Your task to perform on an android device: Show the shopping cart on ebay.com. Add "macbook pro 13 inch" to the cart on ebay.com Image 0: 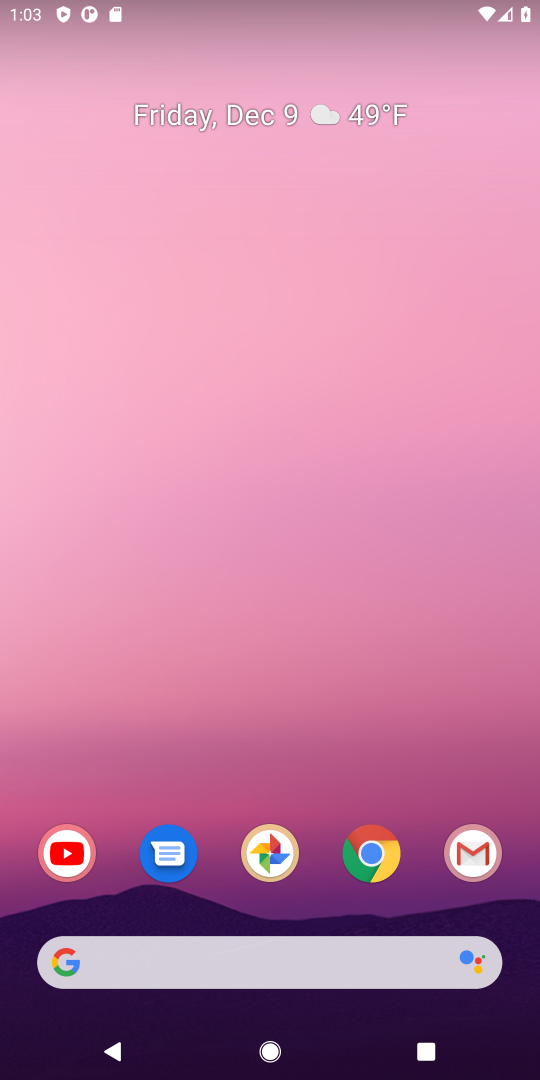
Step 0: click (333, 386)
Your task to perform on an android device: Show the shopping cart on ebay.com. Add "macbook pro 13 inch" to the cart on ebay.com Image 1: 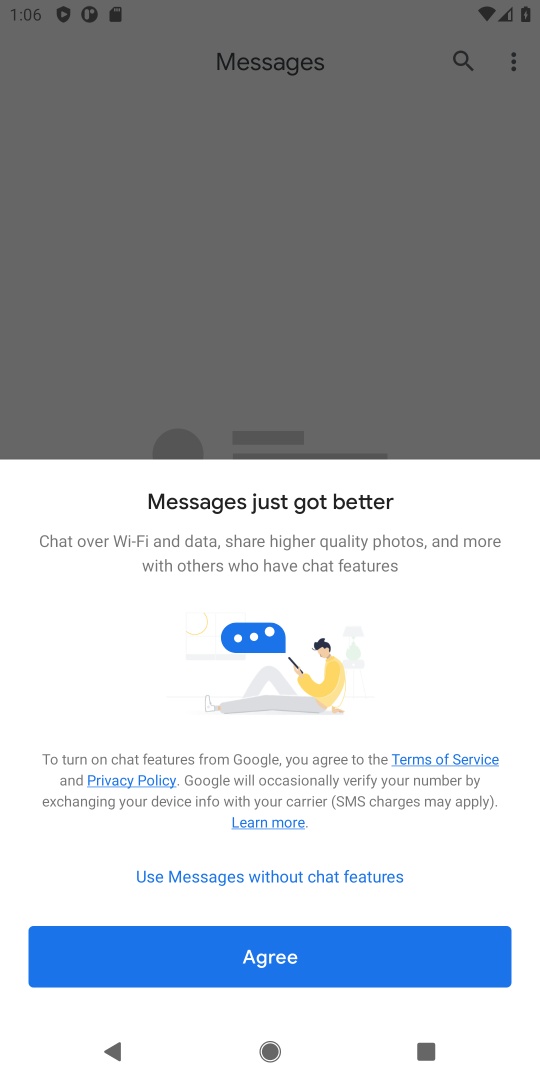
Step 1: press home button
Your task to perform on an android device: Show the shopping cart on ebay.com. Add "macbook pro 13 inch" to the cart on ebay.com Image 2: 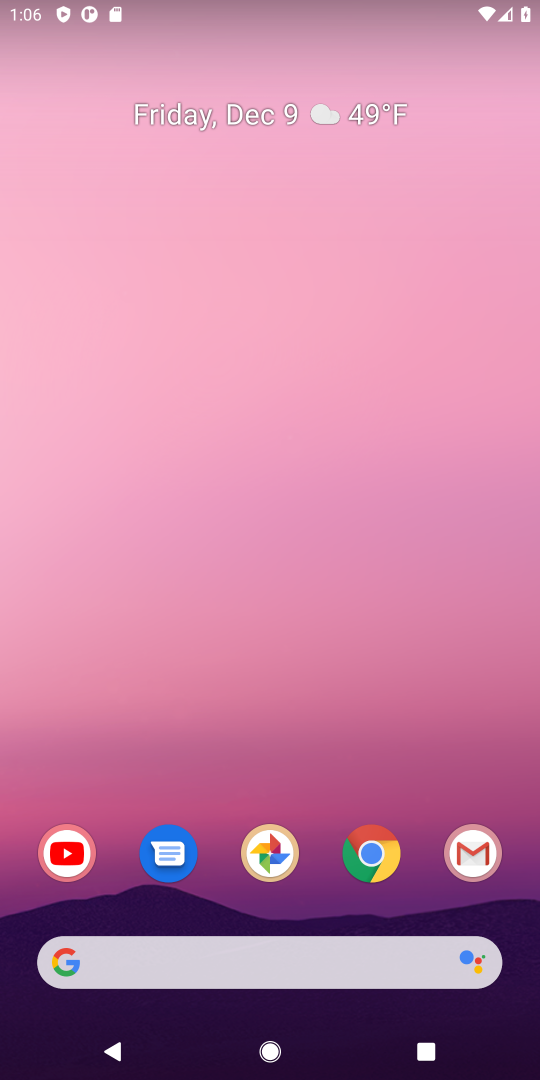
Step 2: drag from (318, 819) to (409, 302)
Your task to perform on an android device: Show the shopping cart on ebay.com. Add "macbook pro 13 inch" to the cart on ebay.com Image 3: 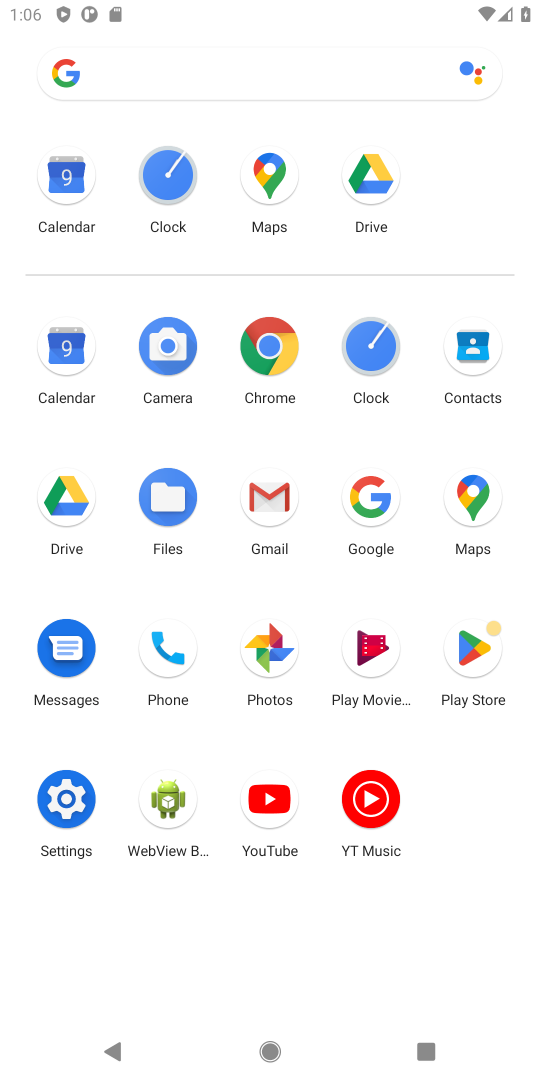
Step 3: click (380, 569)
Your task to perform on an android device: Show the shopping cart on ebay.com. Add "macbook pro 13 inch" to the cart on ebay.com Image 4: 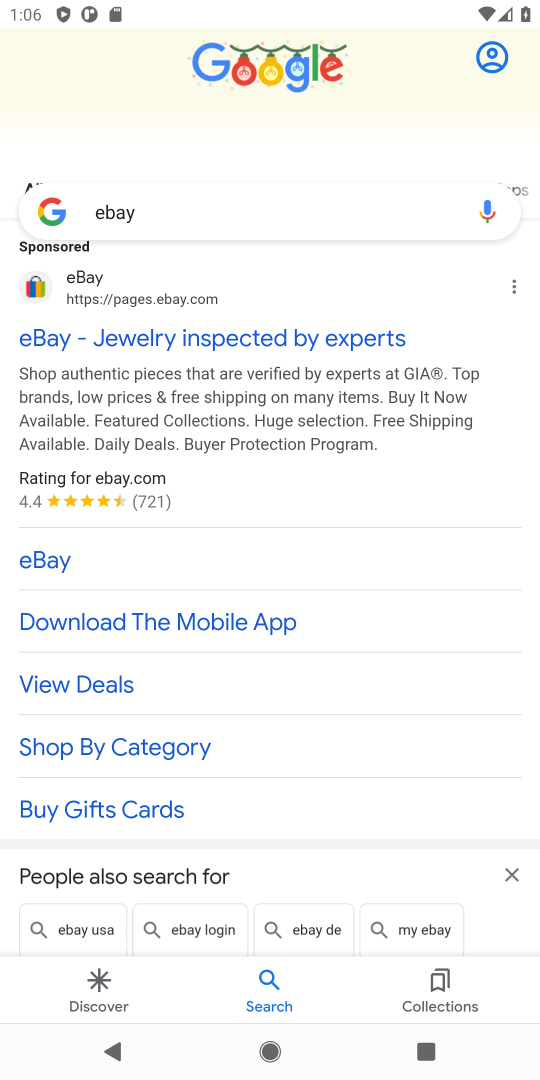
Step 4: click (365, 505)
Your task to perform on an android device: Show the shopping cart on ebay.com. Add "macbook pro 13 inch" to the cart on ebay.com Image 5: 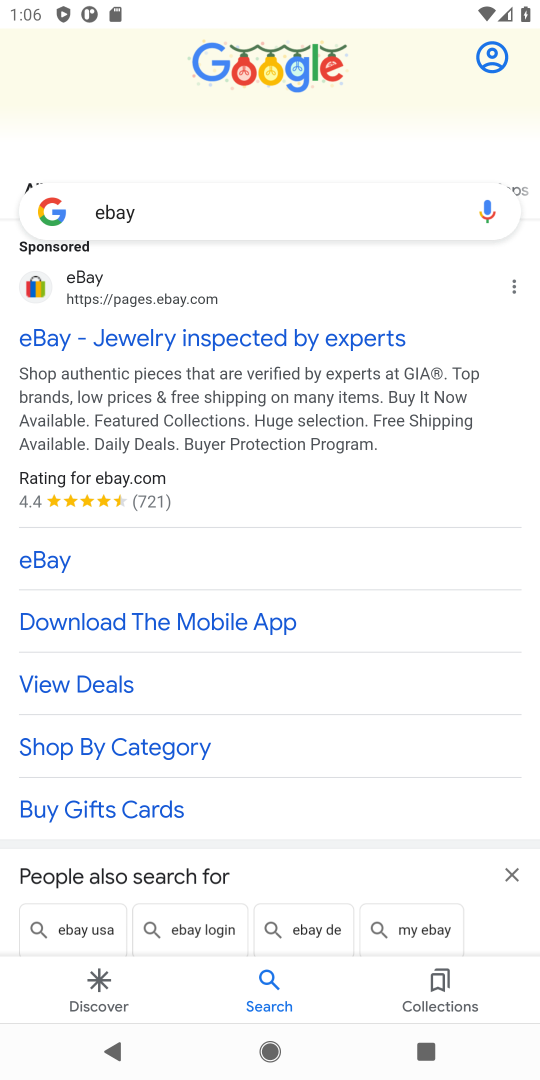
Step 5: click (150, 325)
Your task to perform on an android device: Show the shopping cart on ebay.com. Add "macbook pro 13 inch" to the cart on ebay.com Image 6: 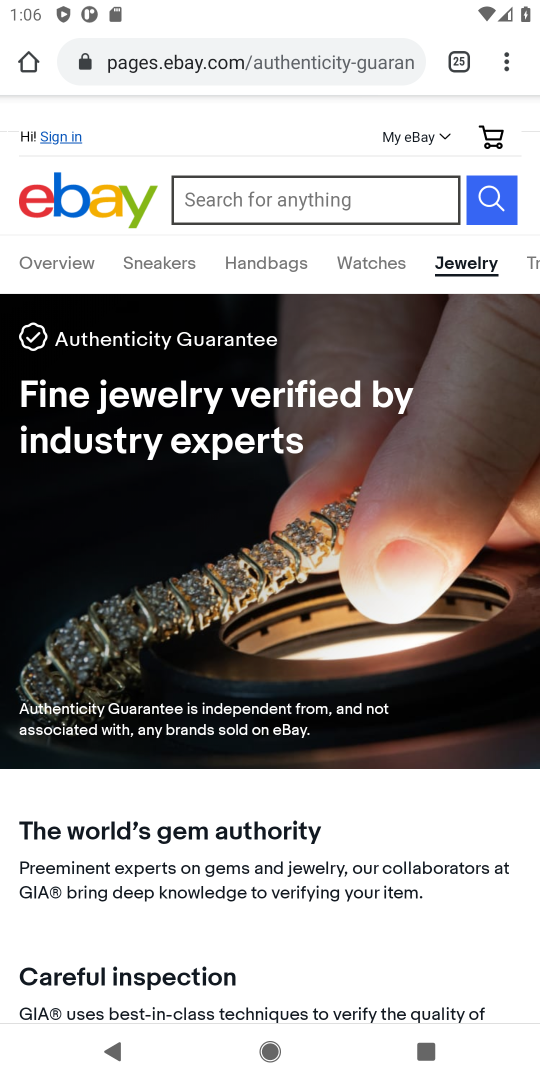
Step 6: click (244, 204)
Your task to perform on an android device: Show the shopping cart on ebay.com. Add "macbook pro 13 inch" to the cart on ebay.com Image 7: 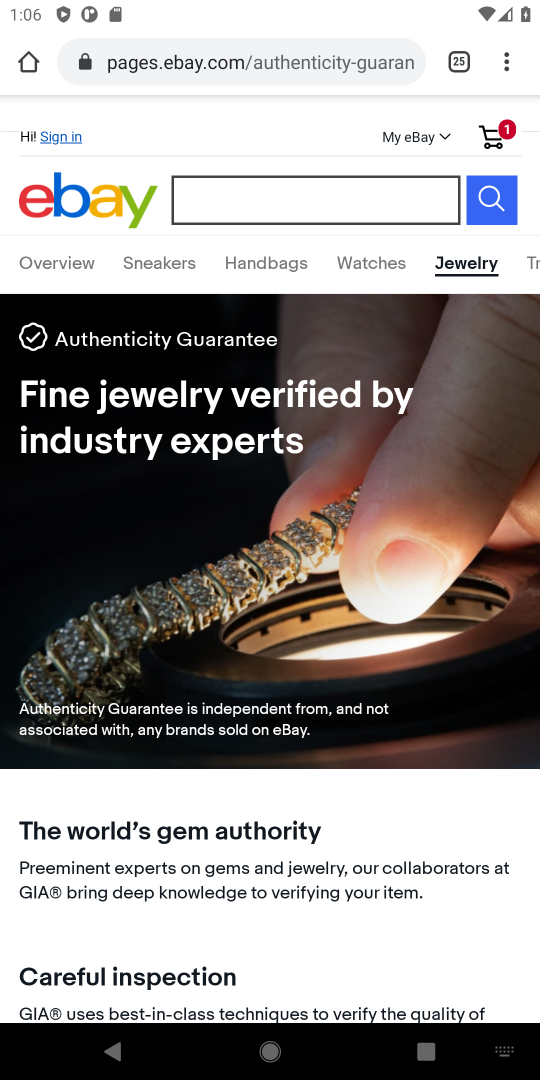
Step 7: click (499, 142)
Your task to perform on an android device: Show the shopping cart on ebay.com. Add "macbook pro 13 inch" to the cart on ebay.com Image 8: 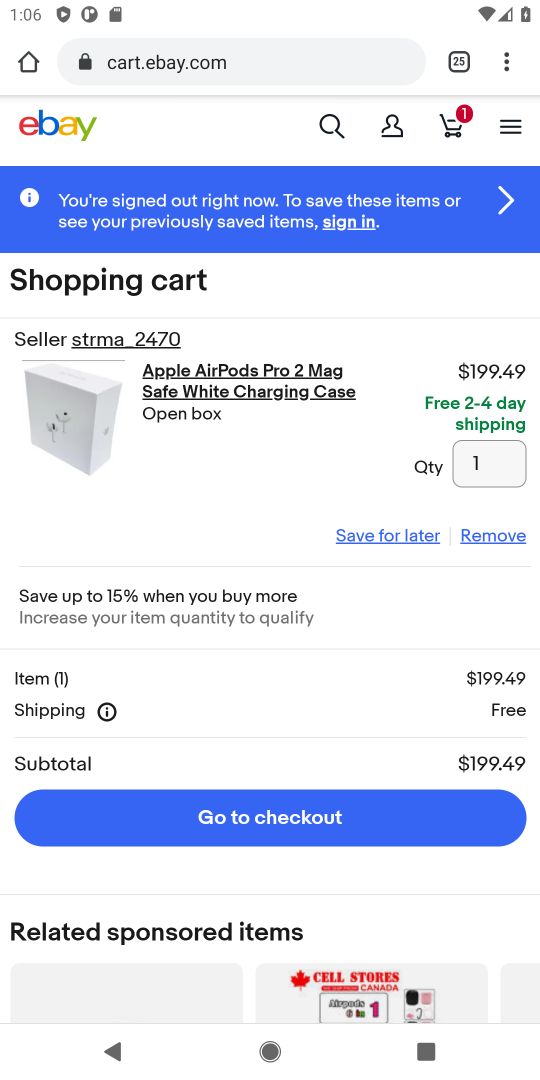
Step 8: click (320, 125)
Your task to perform on an android device: Show the shopping cart on ebay.com. Add "macbook pro 13 inch" to the cart on ebay.com Image 9: 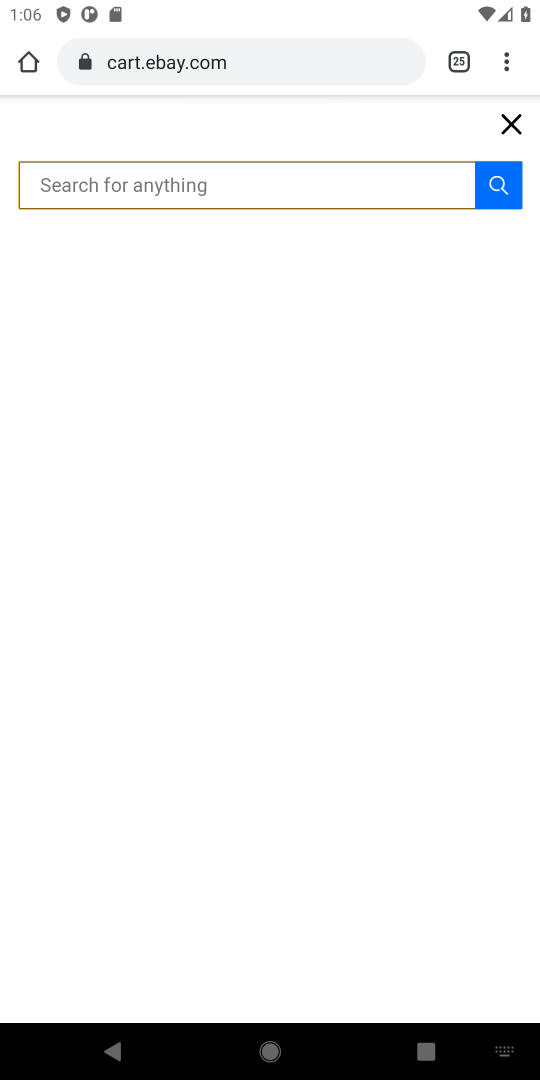
Step 9: type "macbook pro 13 inch"
Your task to perform on an android device: Show the shopping cart on ebay.com. Add "macbook pro 13 inch" to the cart on ebay.com Image 10: 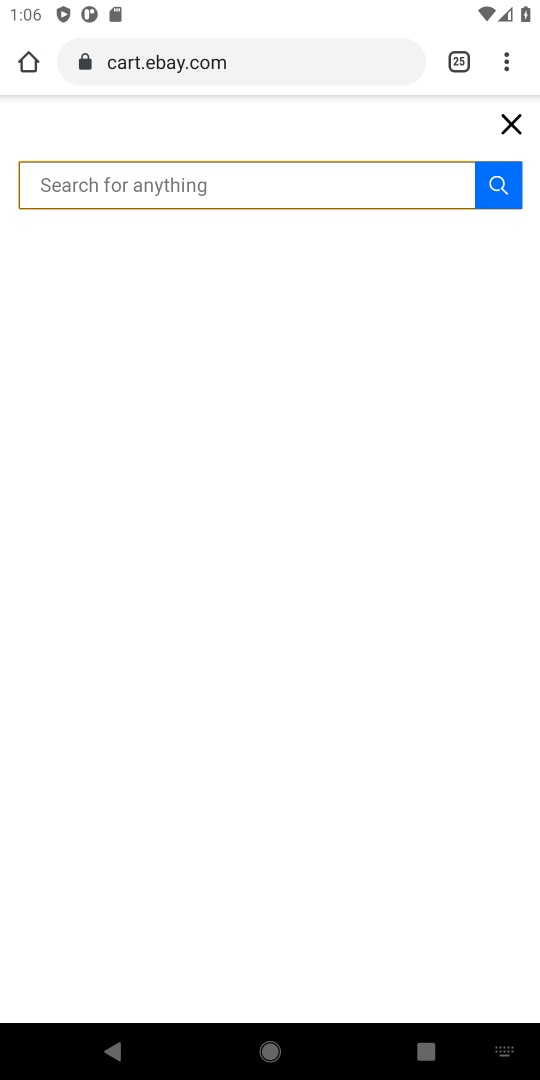
Step 10: click (503, 182)
Your task to perform on an android device: Show the shopping cart on ebay.com. Add "macbook pro 13 inch" to the cart on ebay.com Image 11: 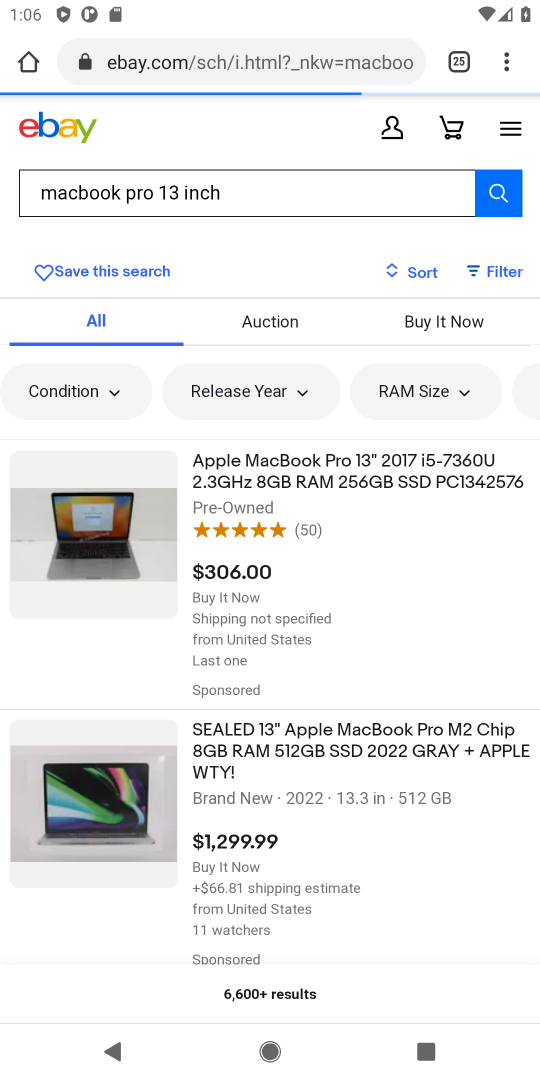
Step 11: click (240, 491)
Your task to perform on an android device: Show the shopping cart on ebay.com. Add "macbook pro 13 inch" to the cart on ebay.com Image 12: 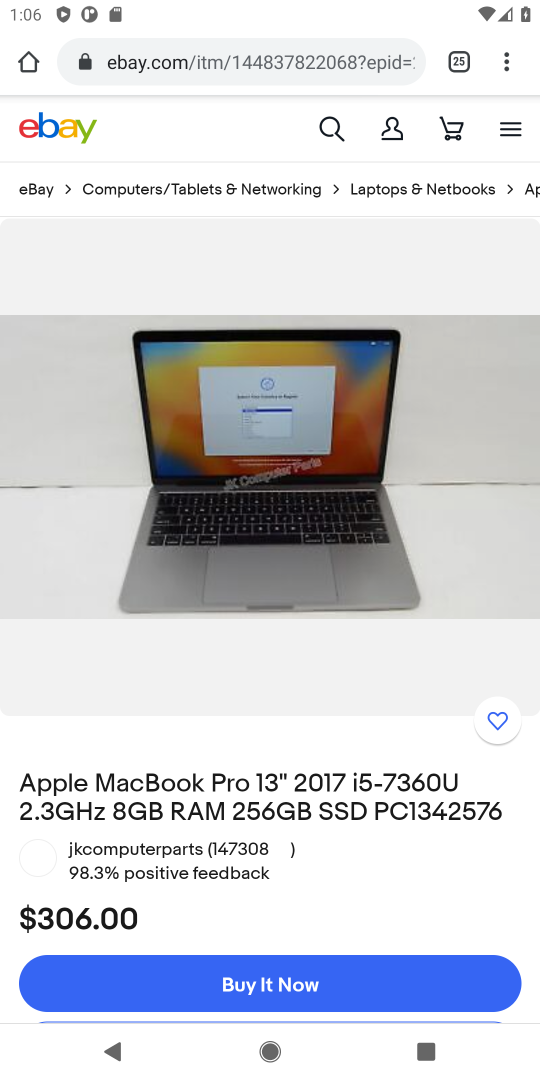
Step 12: drag from (240, 691) to (262, 221)
Your task to perform on an android device: Show the shopping cart on ebay.com. Add "macbook pro 13 inch" to the cart on ebay.com Image 13: 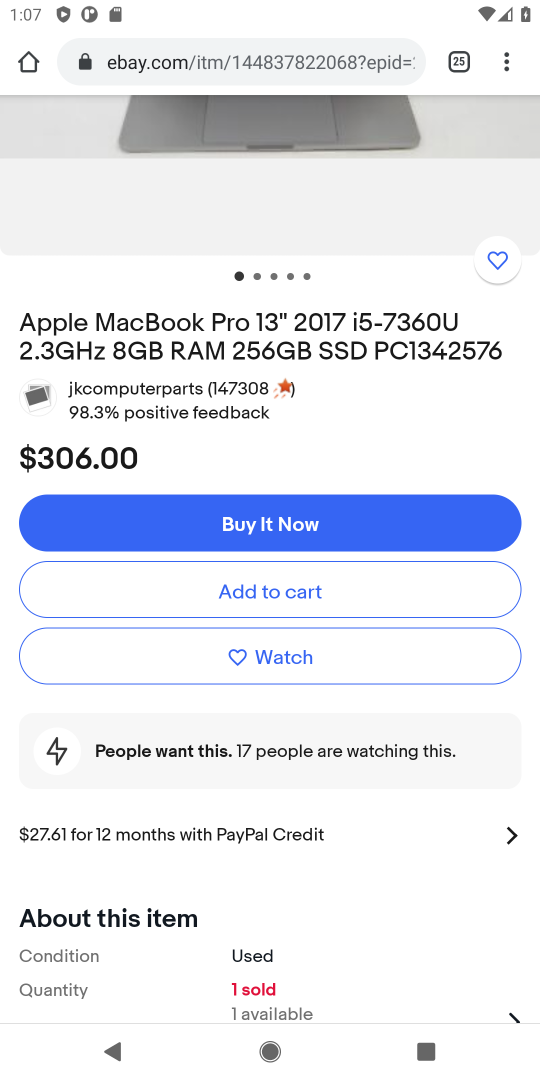
Step 13: click (265, 591)
Your task to perform on an android device: Show the shopping cart on ebay.com. Add "macbook pro 13 inch" to the cart on ebay.com Image 14: 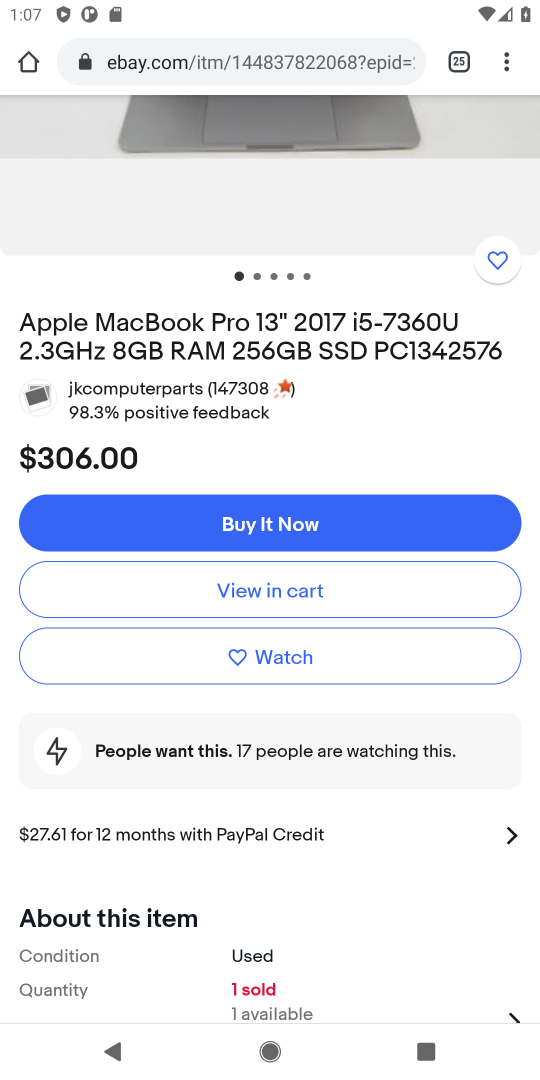
Step 14: task complete